Your task to perform on an android device: delete browsing data in the chrome app Image 0: 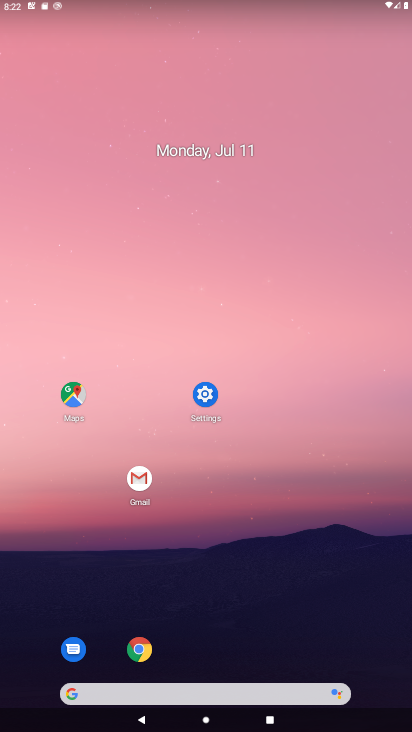
Step 0: click (151, 647)
Your task to perform on an android device: delete browsing data in the chrome app Image 1: 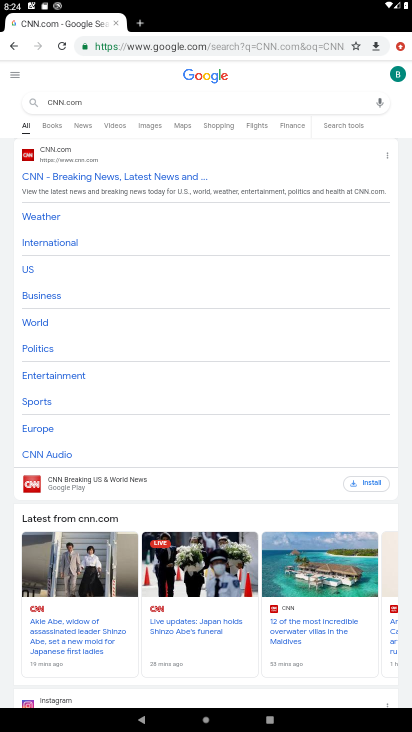
Step 1: task complete